Your task to perform on an android device: Open Google Chrome and click the shortcut for Amazon.com Image 0: 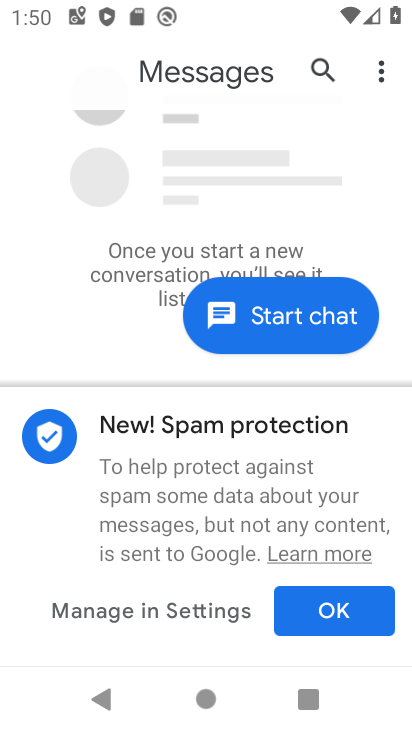
Step 0: press home button
Your task to perform on an android device: Open Google Chrome and click the shortcut for Amazon.com Image 1: 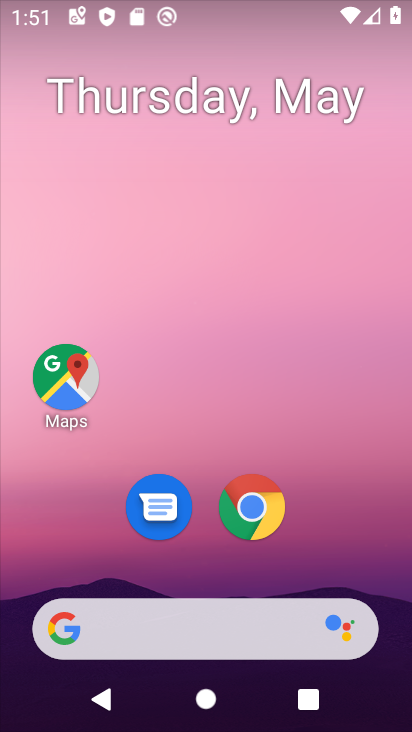
Step 1: drag from (145, 634) to (194, 9)
Your task to perform on an android device: Open Google Chrome and click the shortcut for Amazon.com Image 2: 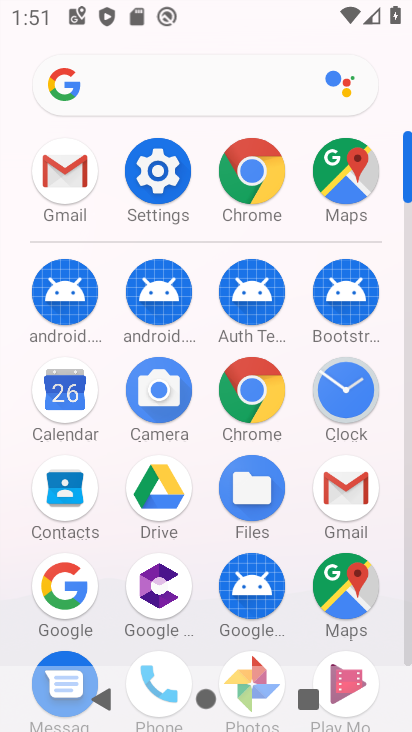
Step 2: click (274, 400)
Your task to perform on an android device: Open Google Chrome and click the shortcut for Amazon.com Image 3: 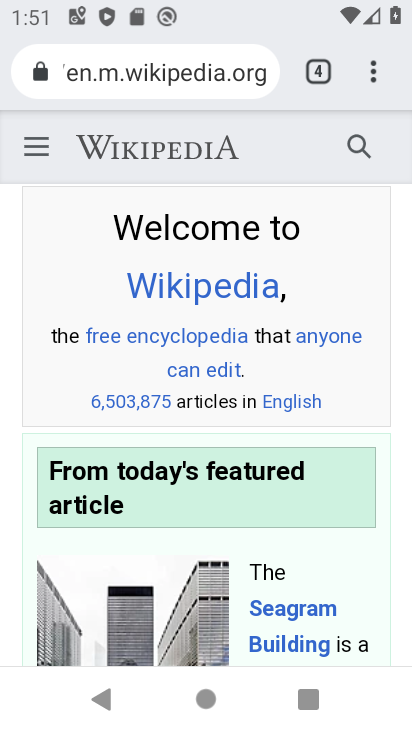
Step 3: click (380, 66)
Your task to perform on an android device: Open Google Chrome and click the shortcut for Amazon.com Image 4: 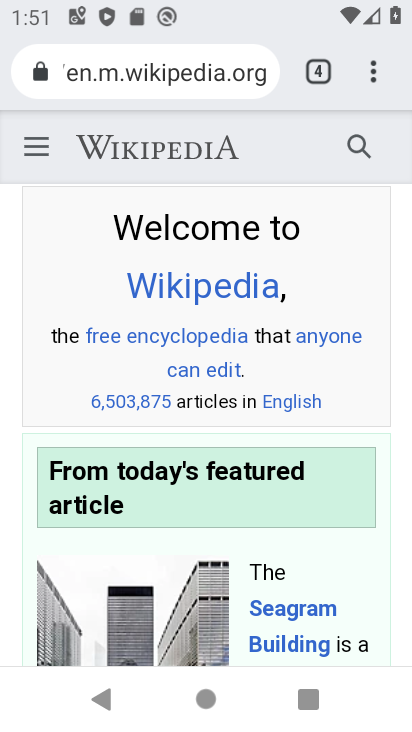
Step 4: drag from (368, 74) to (269, 147)
Your task to perform on an android device: Open Google Chrome and click the shortcut for Amazon.com Image 5: 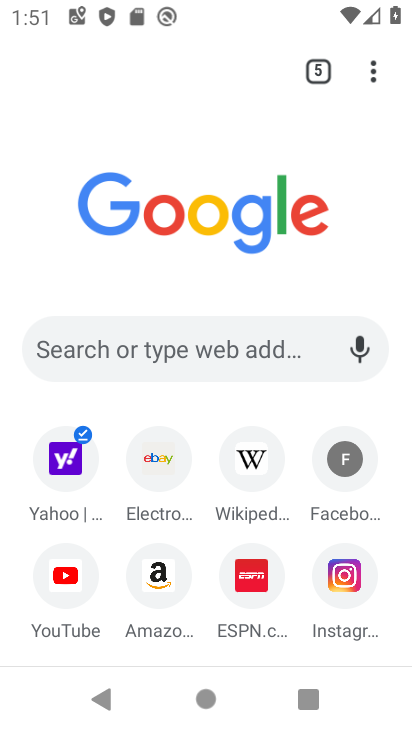
Step 5: click (142, 572)
Your task to perform on an android device: Open Google Chrome and click the shortcut for Amazon.com Image 6: 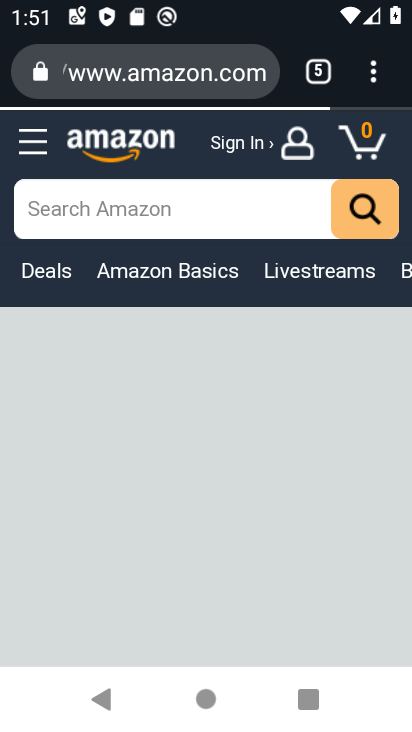
Step 6: drag from (361, 66) to (262, 373)
Your task to perform on an android device: Open Google Chrome and click the shortcut for Amazon.com Image 7: 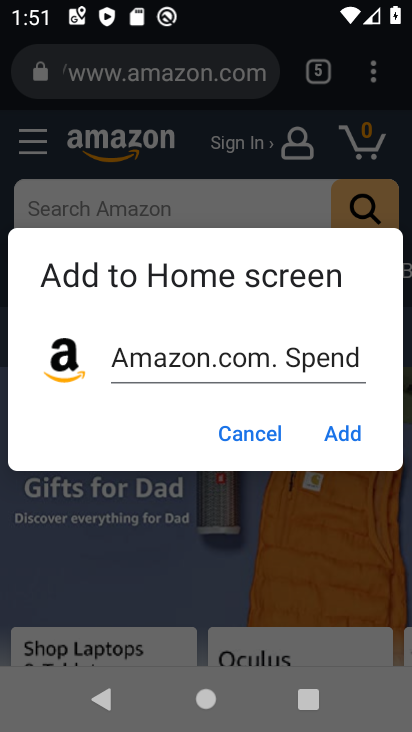
Step 7: click (328, 428)
Your task to perform on an android device: Open Google Chrome and click the shortcut for Amazon.com Image 8: 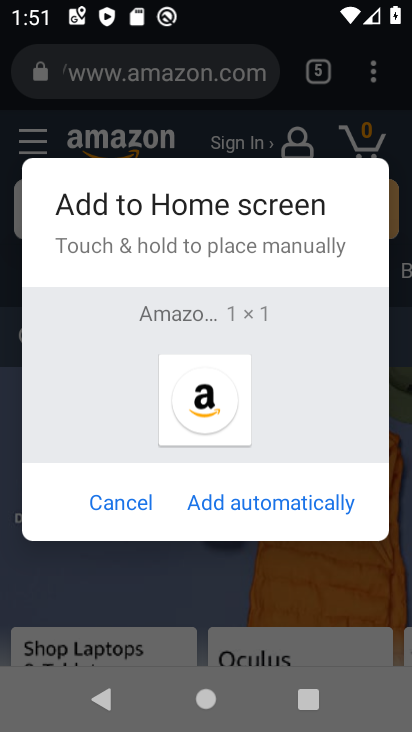
Step 8: task complete